Your task to perform on an android device: see sites visited before in the chrome app Image 0: 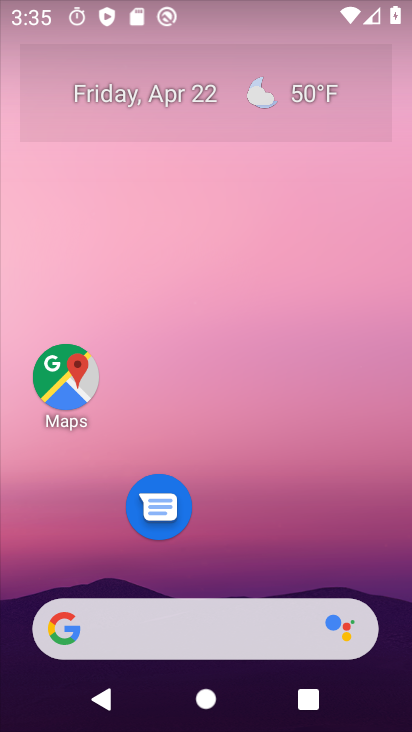
Step 0: drag from (211, 473) to (250, 67)
Your task to perform on an android device: see sites visited before in the chrome app Image 1: 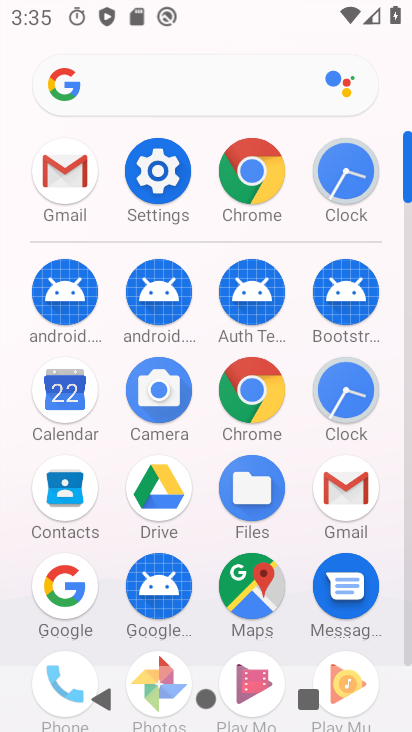
Step 1: click (249, 162)
Your task to perform on an android device: see sites visited before in the chrome app Image 2: 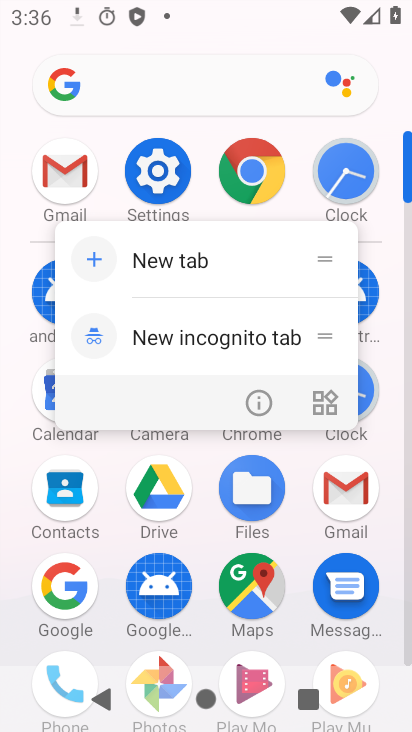
Step 2: click (268, 179)
Your task to perform on an android device: see sites visited before in the chrome app Image 3: 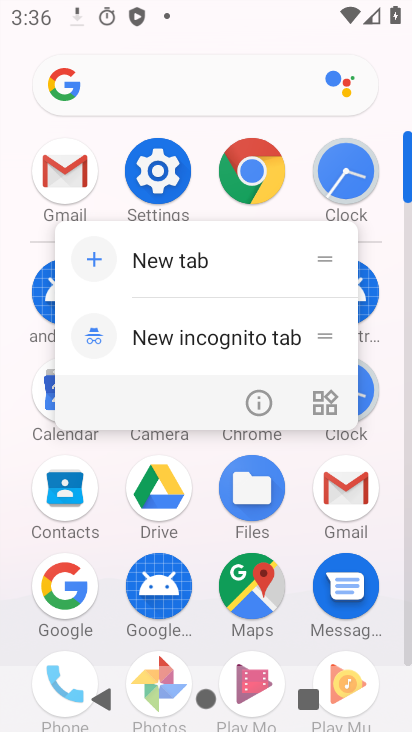
Step 3: click (252, 169)
Your task to perform on an android device: see sites visited before in the chrome app Image 4: 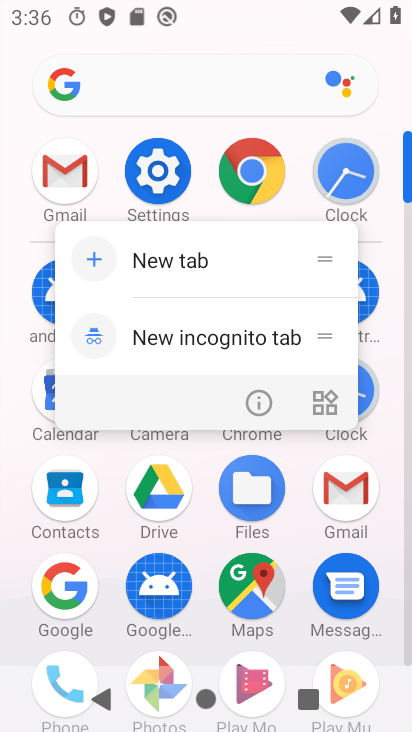
Step 4: click (255, 168)
Your task to perform on an android device: see sites visited before in the chrome app Image 5: 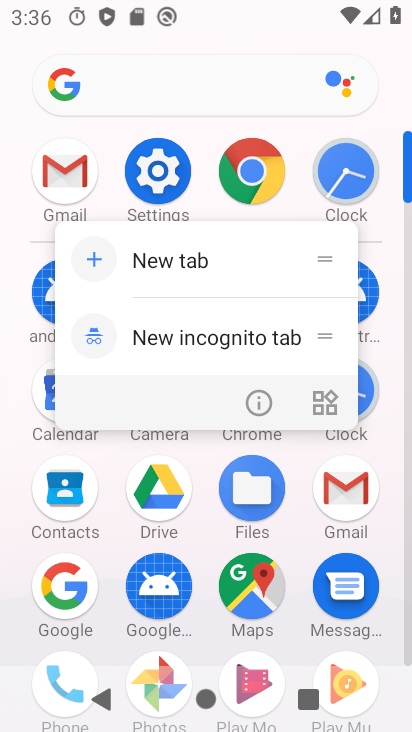
Step 5: click (252, 165)
Your task to perform on an android device: see sites visited before in the chrome app Image 6: 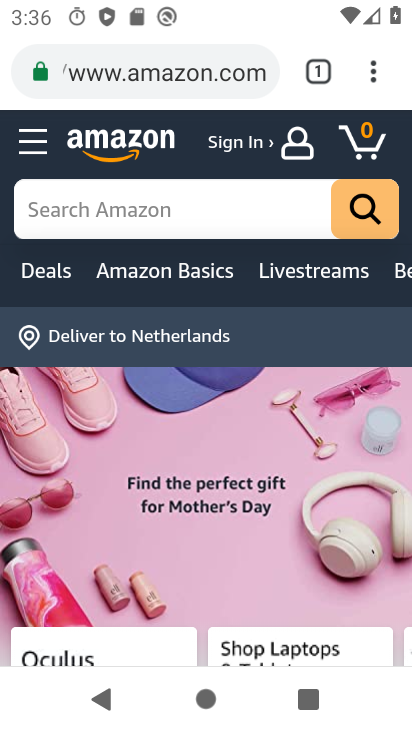
Step 6: task complete